Your task to perform on an android device: delete the emails in spam in the gmail app Image 0: 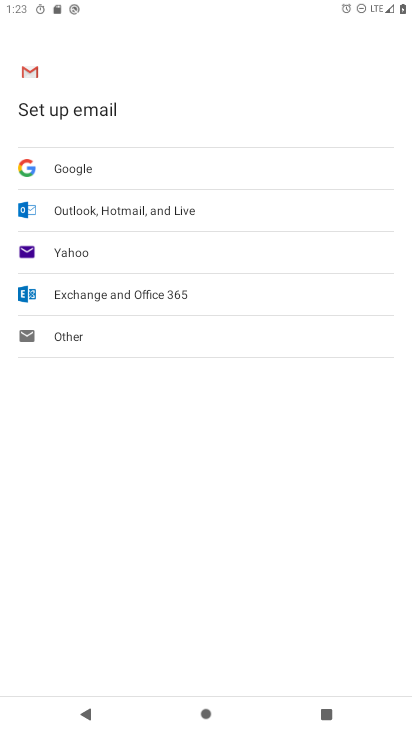
Step 0: press home button
Your task to perform on an android device: delete the emails in spam in the gmail app Image 1: 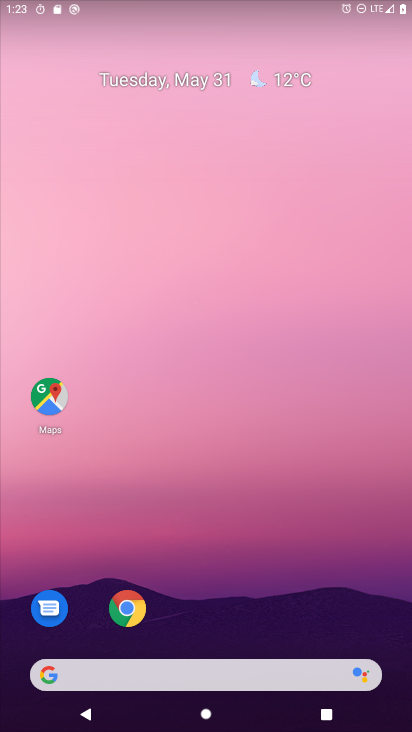
Step 1: drag from (313, 609) to (339, 0)
Your task to perform on an android device: delete the emails in spam in the gmail app Image 2: 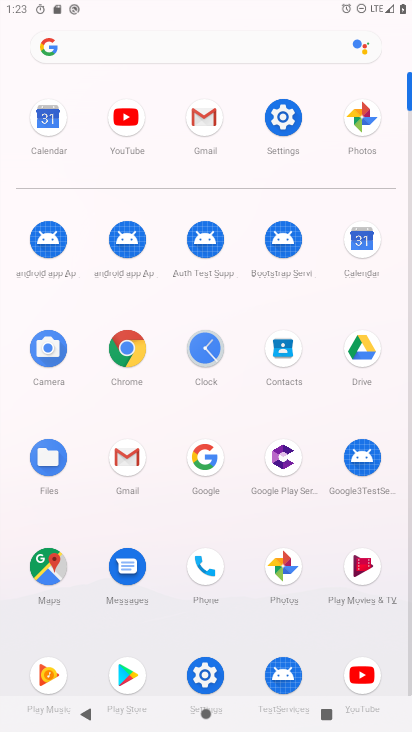
Step 2: click (200, 125)
Your task to perform on an android device: delete the emails in spam in the gmail app Image 3: 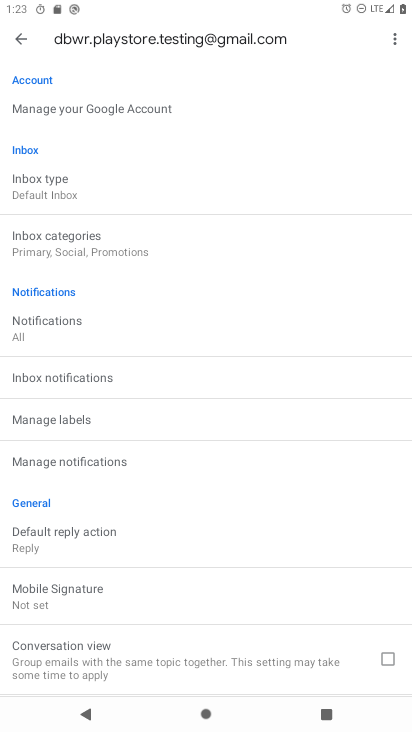
Step 3: click (16, 30)
Your task to perform on an android device: delete the emails in spam in the gmail app Image 4: 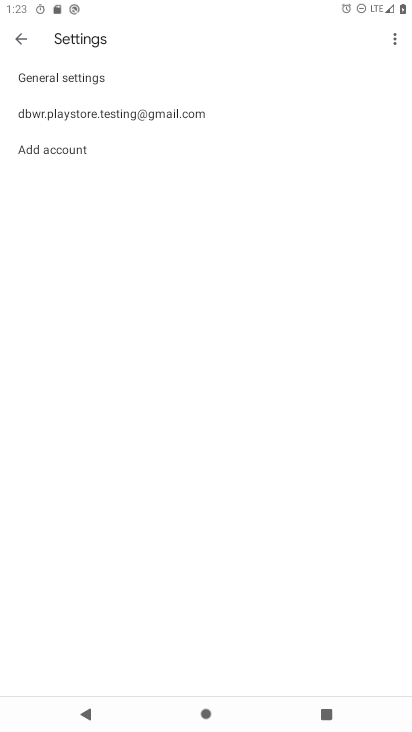
Step 4: click (18, 35)
Your task to perform on an android device: delete the emails in spam in the gmail app Image 5: 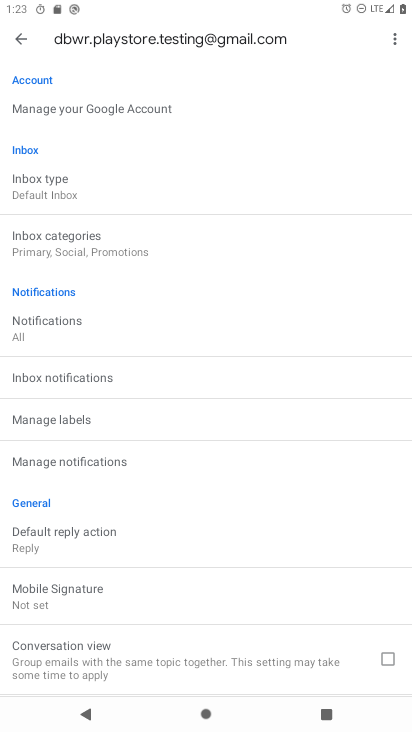
Step 5: click (15, 35)
Your task to perform on an android device: delete the emails in spam in the gmail app Image 6: 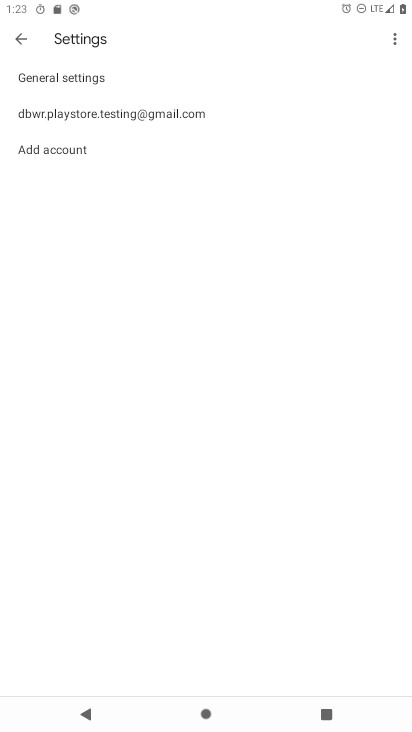
Step 6: click (22, 40)
Your task to perform on an android device: delete the emails in spam in the gmail app Image 7: 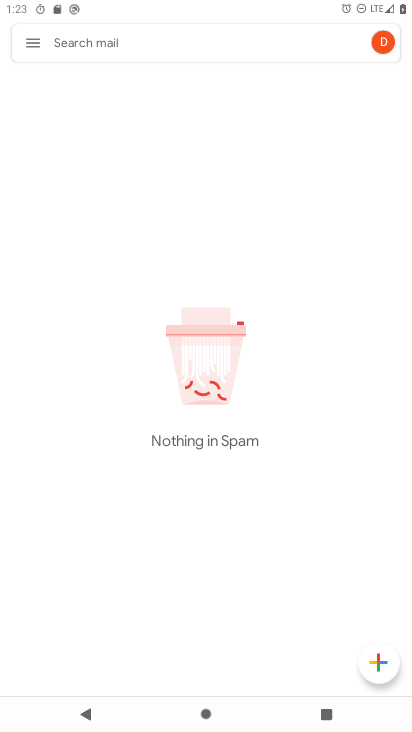
Step 7: click (22, 40)
Your task to perform on an android device: delete the emails in spam in the gmail app Image 8: 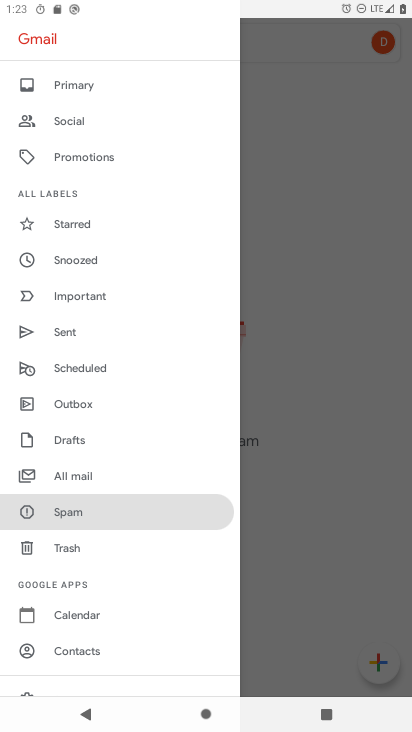
Step 8: click (61, 512)
Your task to perform on an android device: delete the emails in spam in the gmail app Image 9: 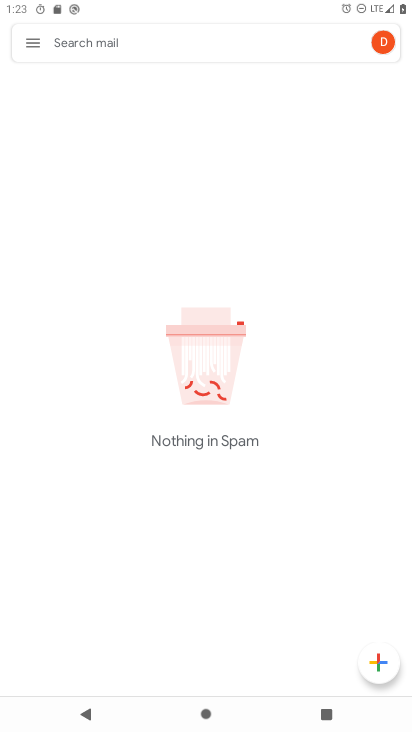
Step 9: task complete